Your task to perform on an android device: turn on showing notifications on the lock screen Image 0: 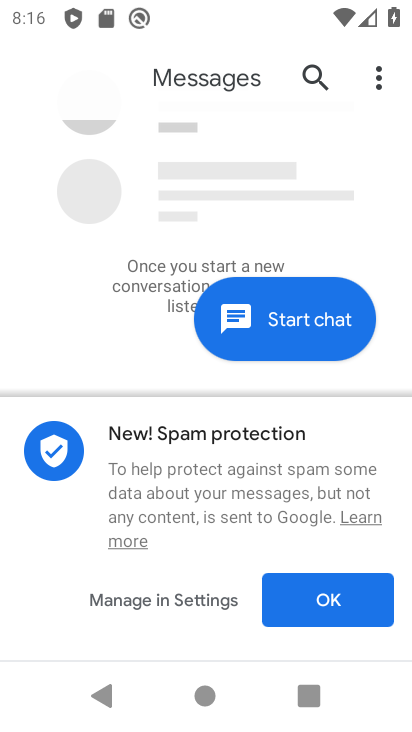
Step 0: press home button
Your task to perform on an android device: turn on showing notifications on the lock screen Image 1: 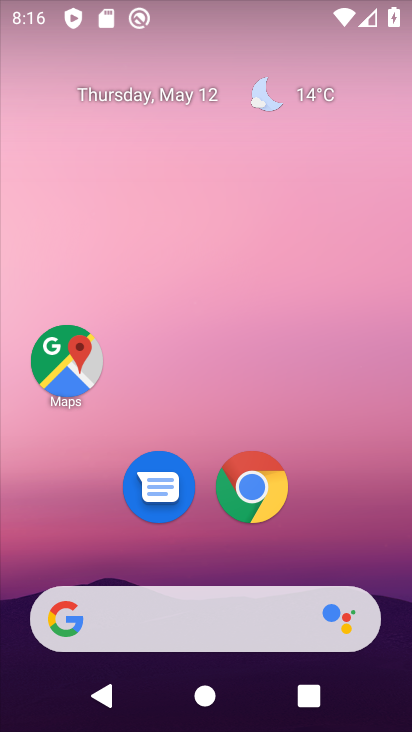
Step 1: drag from (14, 615) to (212, 183)
Your task to perform on an android device: turn on showing notifications on the lock screen Image 2: 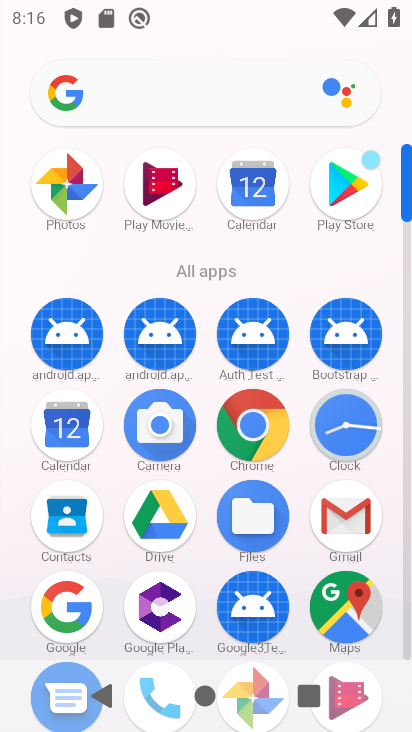
Step 2: drag from (20, 630) to (260, 193)
Your task to perform on an android device: turn on showing notifications on the lock screen Image 3: 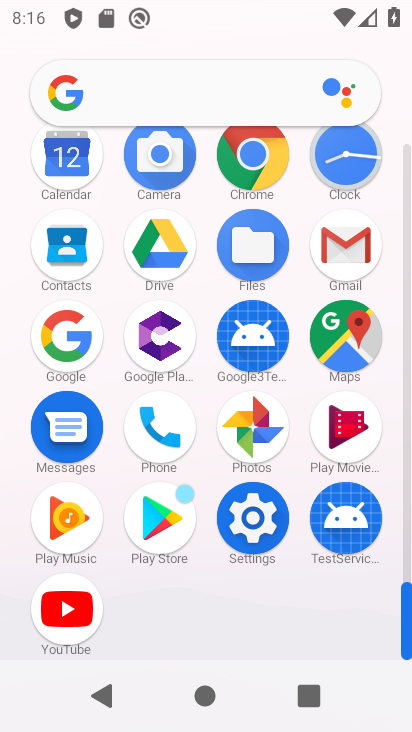
Step 3: click (249, 542)
Your task to perform on an android device: turn on showing notifications on the lock screen Image 4: 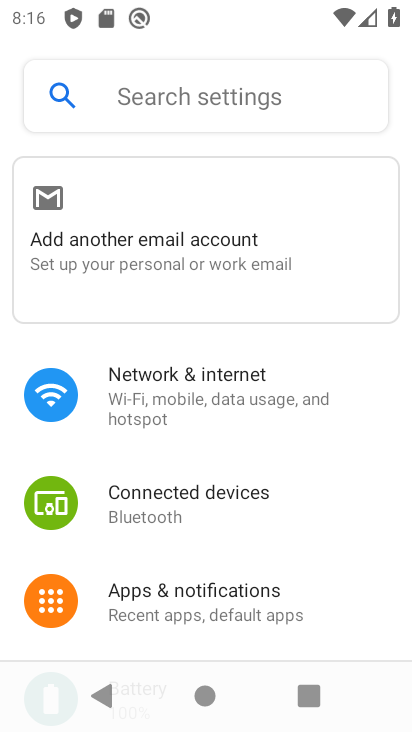
Step 4: click (163, 597)
Your task to perform on an android device: turn on showing notifications on the lock screen Image 5: 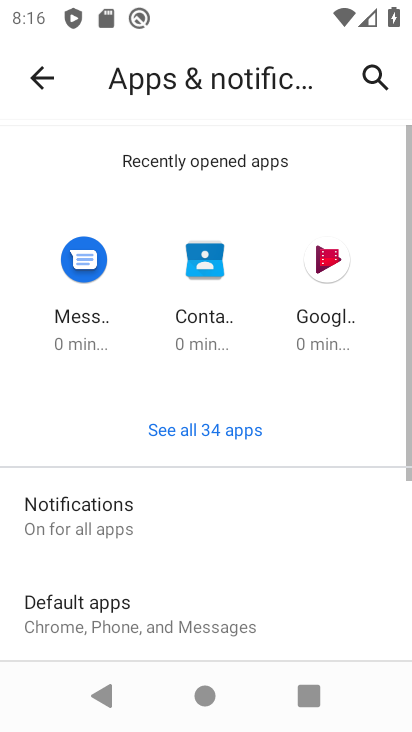
Step 5: click (178, 510)
Your task to perform on an android device: turn on showing notifications on the lock screen Image 6: 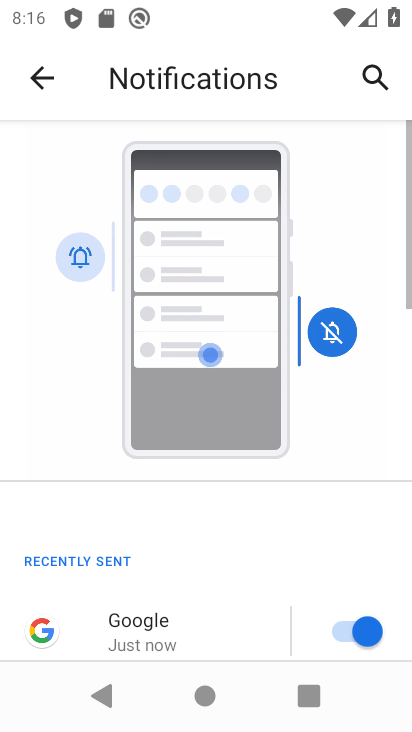
Step 6: drag from (77, 517) to (263, 155)
Your task to perform on an android device: turn on showing notifications on the lock screen Image 7: 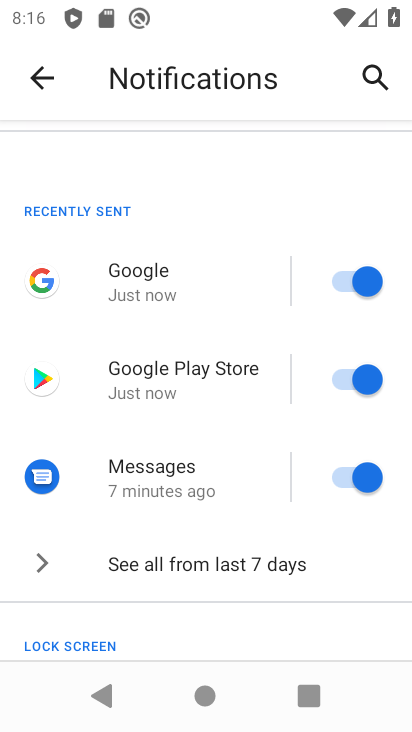
Step 7: drag from (94, 651) to (236, 276)
Your task to perform on an android device: turn on showing notifications on the lock screen Image 8: 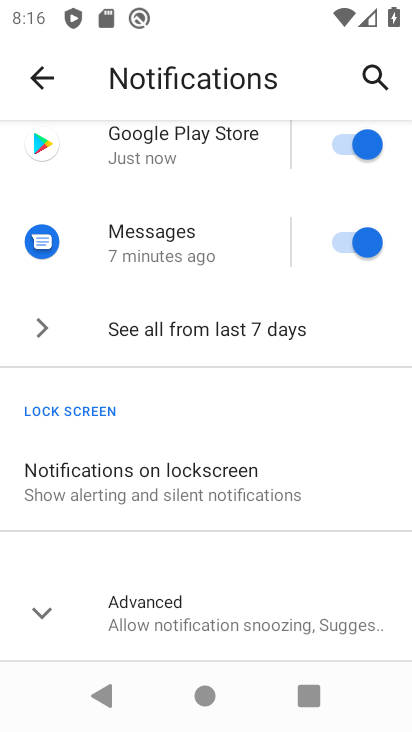
Step 8: click (102, 498)
Your task to perform on an android device: turn on showing notifications on the lock screen Image 9: 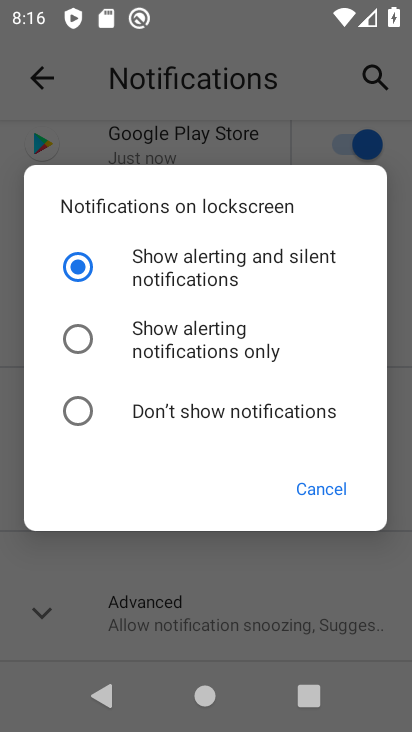
Step 9: task complete